Your task to perform on an android device: turn notification dots on Image 0: 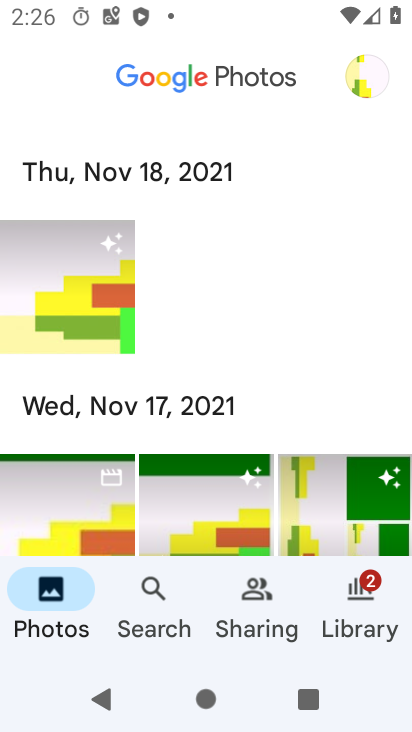
Step 0: press home button
Your task to perform on an android device: turn notification dots on Image 1: 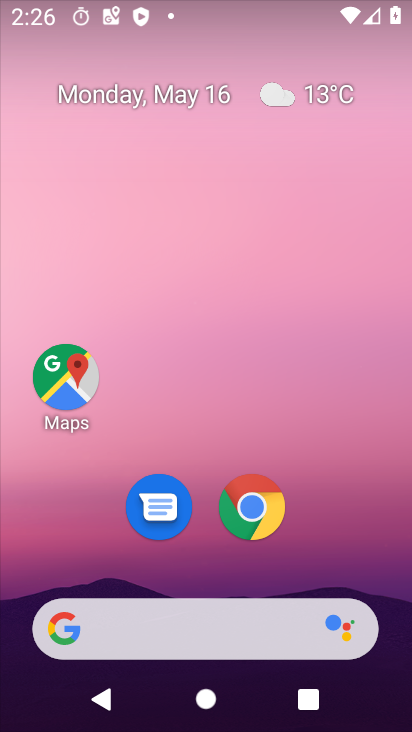
Step 1: drag from (358, 546) to (349, 125)
Your task to perform on an android device: turn notification dots on Image 2: 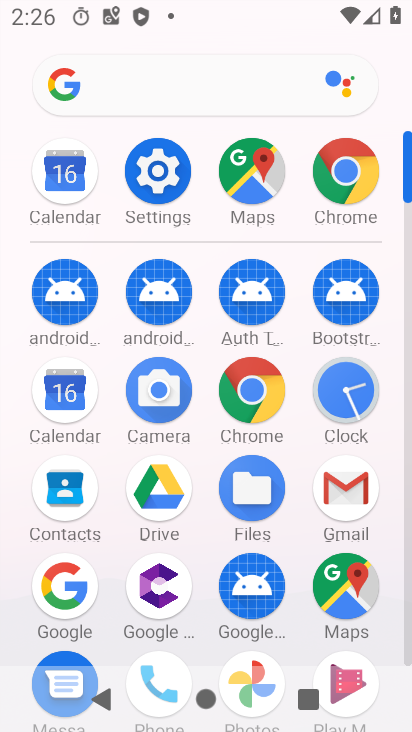
Step 2: click (175, 174)
Your task to perform on an android device: turn notification dots on Image 3: 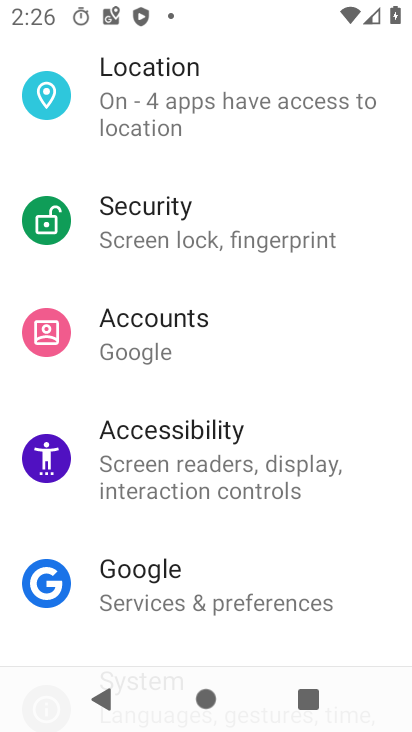
Step 3: drag from (363, 361) to (368, 453)
Your task to perform on an android device: turn notification dots on Image 4: 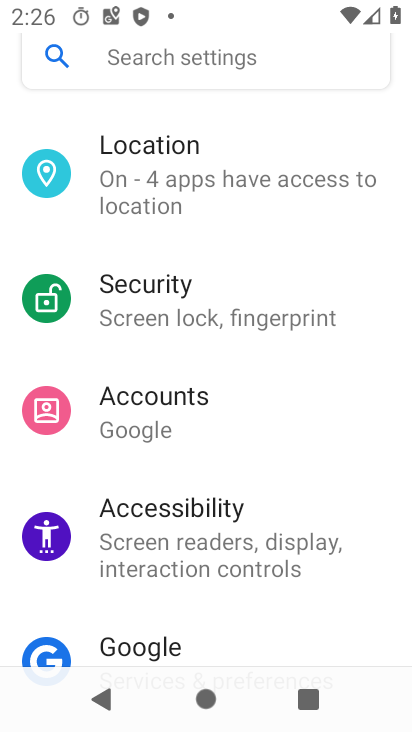
Step 4: drag from (369, 303) to (369, 402)
Your task to perform on an android device: turn notification dots on Image 5: 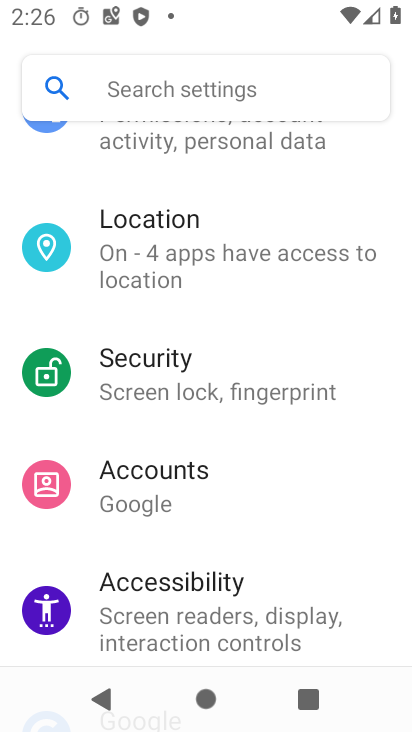
Step 5: drag from (367, 295) to (356, 408)
Your task to perform on an android device: turn notification dots on Image 6: 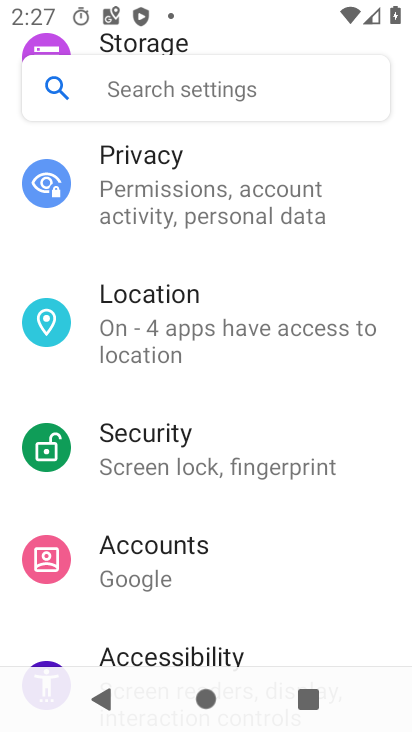
Step 6: drag from (361, 228) to (366, 352)
Your task to perform on an android device: turn notification dots on Image 7: 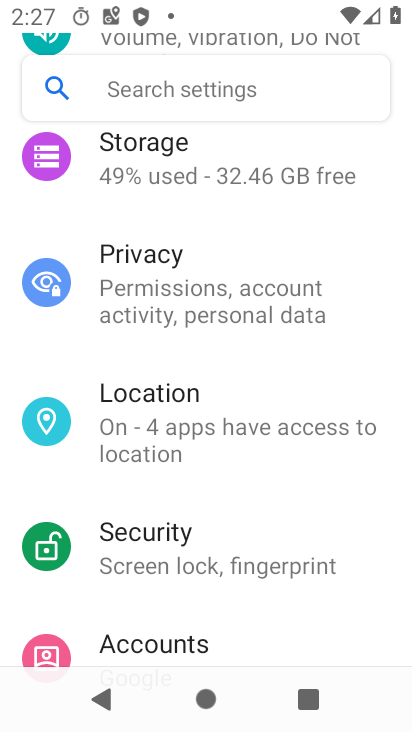
Step 7: drag from (361, 244) to (347, 378)
Your task to perform on an android device: turn notification dots on Image 8: 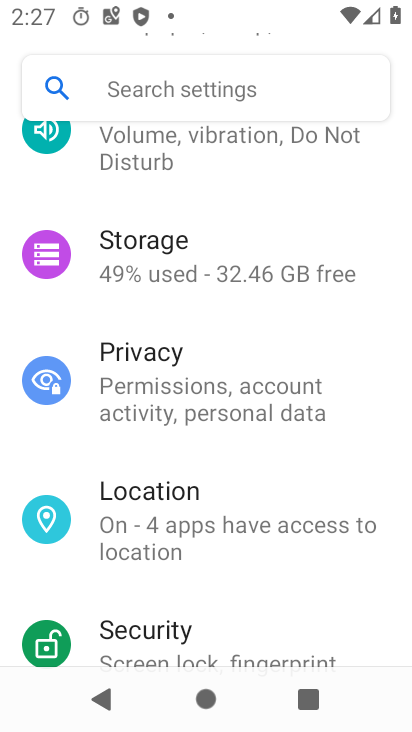
Step 8: drag from (372, 209) to (374, 355)
Your task to perform on an android device: turn notification dots on Image 9: 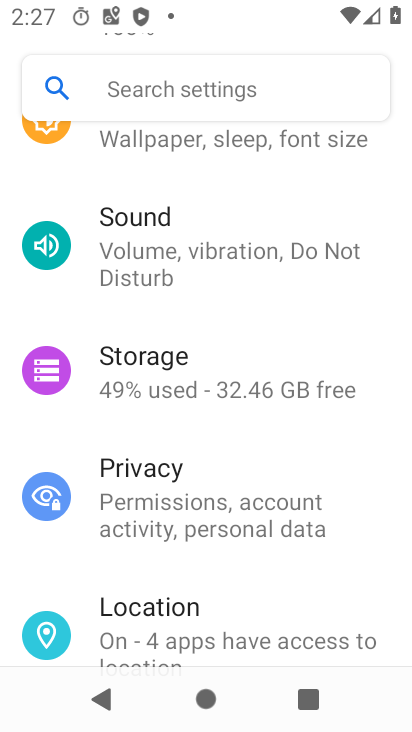
Step 9: drag from (370, 218) to (354, 345)
Your task to perform on an android device: turn notification dots on Image 10: 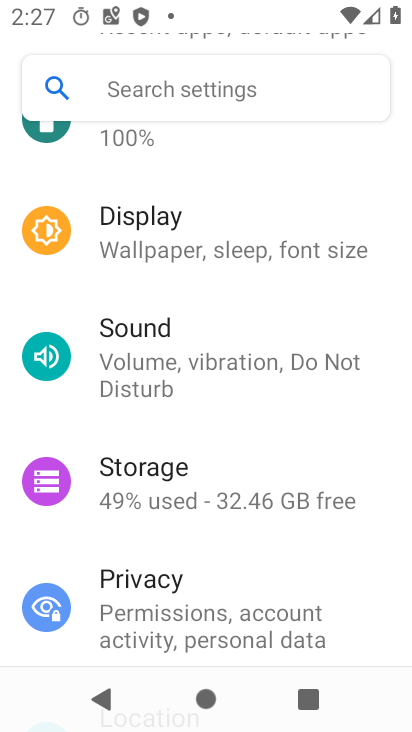
Step 10: drag from (375, 182) to (377, 299)
Your task to perform on an android device: turn notification dots on Image 11: 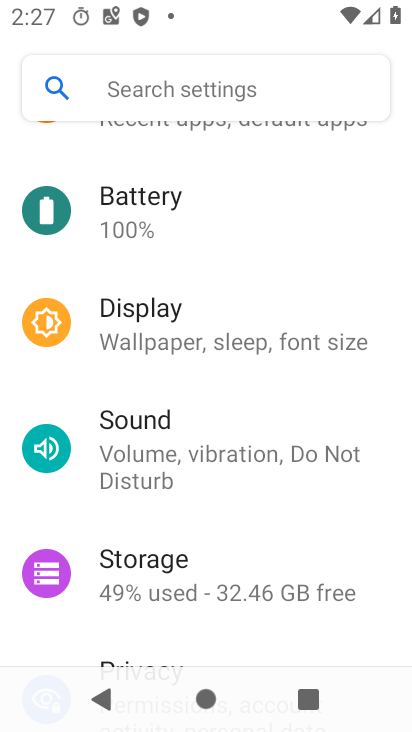
Step 11: drag from (376, 195) to (372, 326)
Your task to perform on an android device: turn notification dots on Image 12: 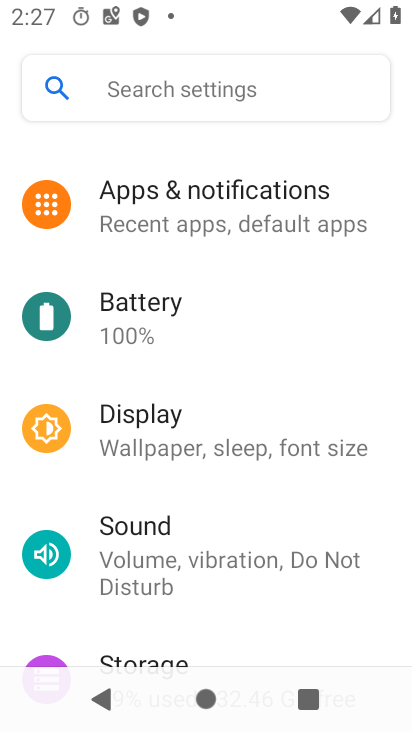
Step 12: drag from (385, 170) to (371, 342)
Your task to perform on an android device: turn notification dots on Image 13: 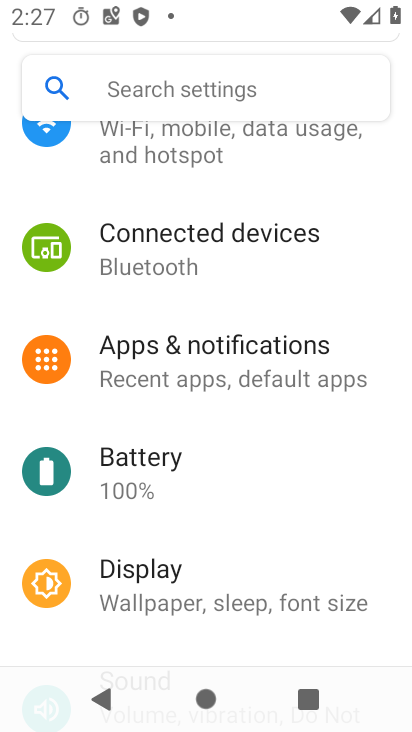
Step 13: click (293, 357)
Your task to perform on an android device: turn notification dots on Image 14: 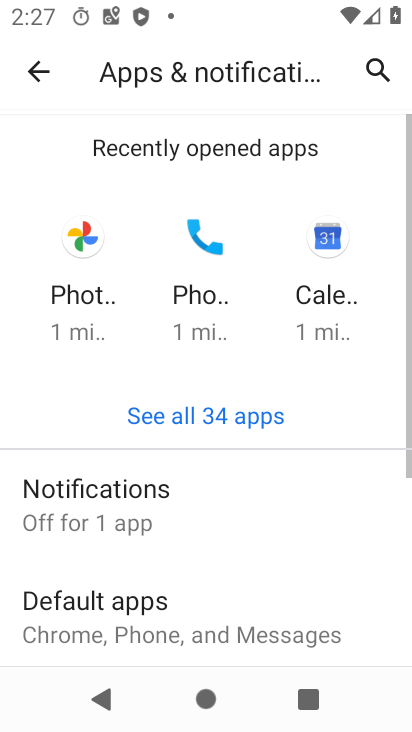
Step 14: drag from (256, 523) to (268, 404)
Your task to perform on an android device: turn notification dots on Image 15: 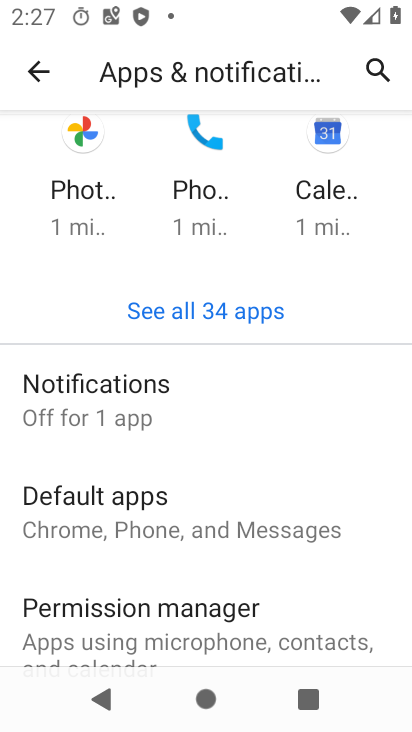
Step 15: drag from (261, 563) to (302, 350)
Your task to perform on an android device: turn notification dots on Image 16: 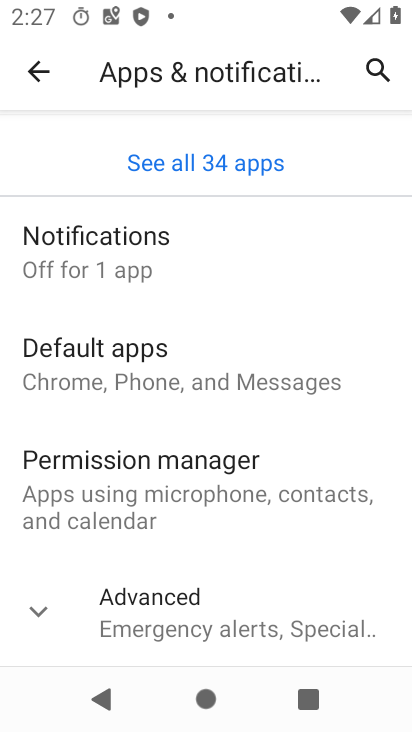
Step 16: click (155, 267)
Your task to perform on an android device: turn notification dots on Image 17: 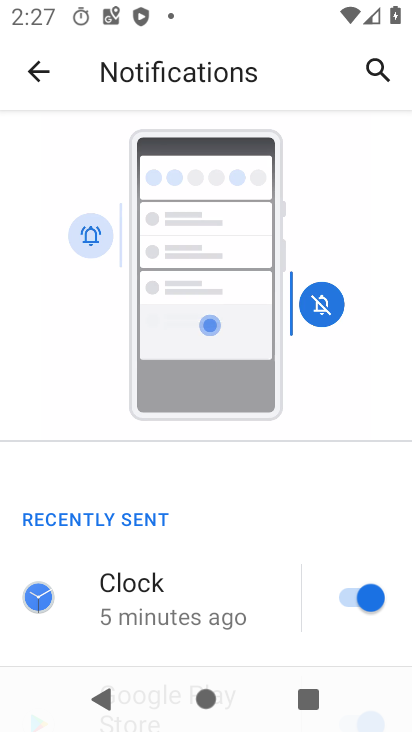
Step 17: drag from (243, 572) to (266, 419)
Your task to perform on an android device: turn notification dots on Image 18: 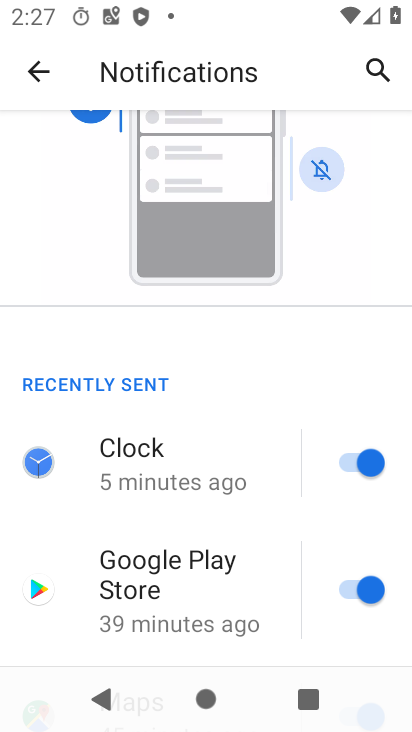
Step 18: drag from (256, 599) to (266, 393)
Your task to perform on an android device: turn notification dots on Image 19: 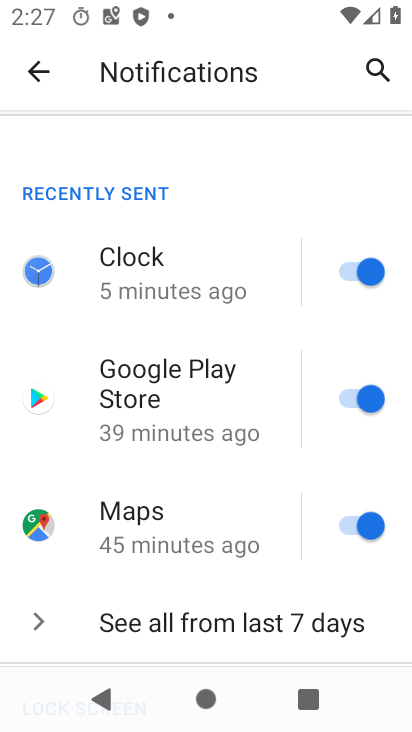
Step 19: drag from (273, 584) to (279, 367)
Your task to perform on an android device: turn notification dots on Image 20: 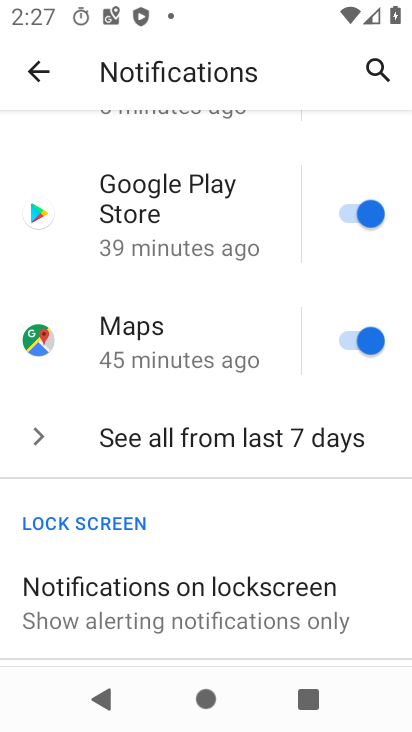
Step 20: drag from (246, 544) to (253, 388)
Your task to perform on an android device: turn notification dots on Image 21: 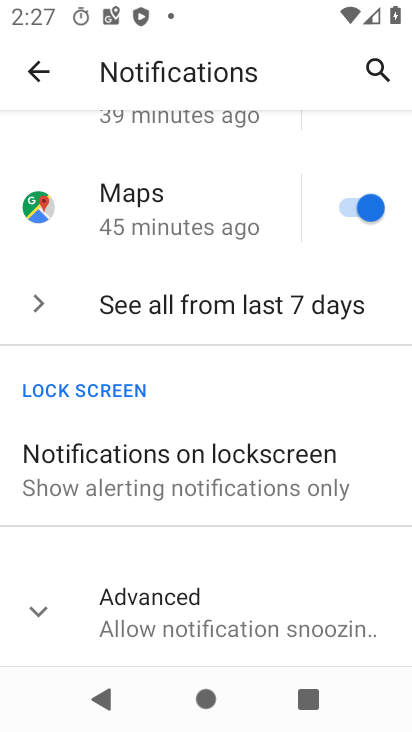
Step 21: click (244, 601)
Your task to perform on an android device: turn notification dots on Image 22: 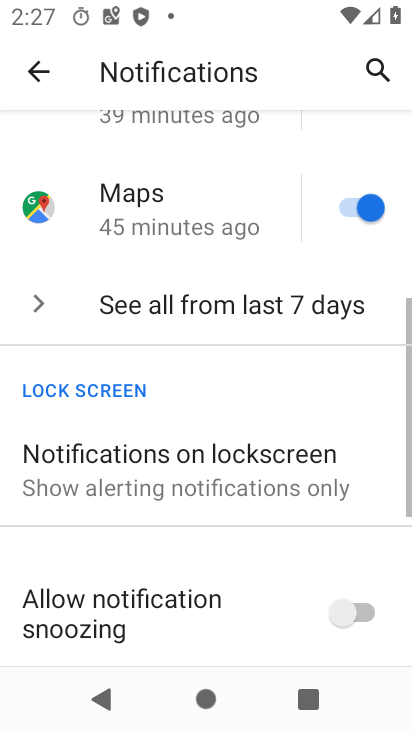
Step 22: task complete